Your task to perform on an android device: Go to Google maps Image 0: 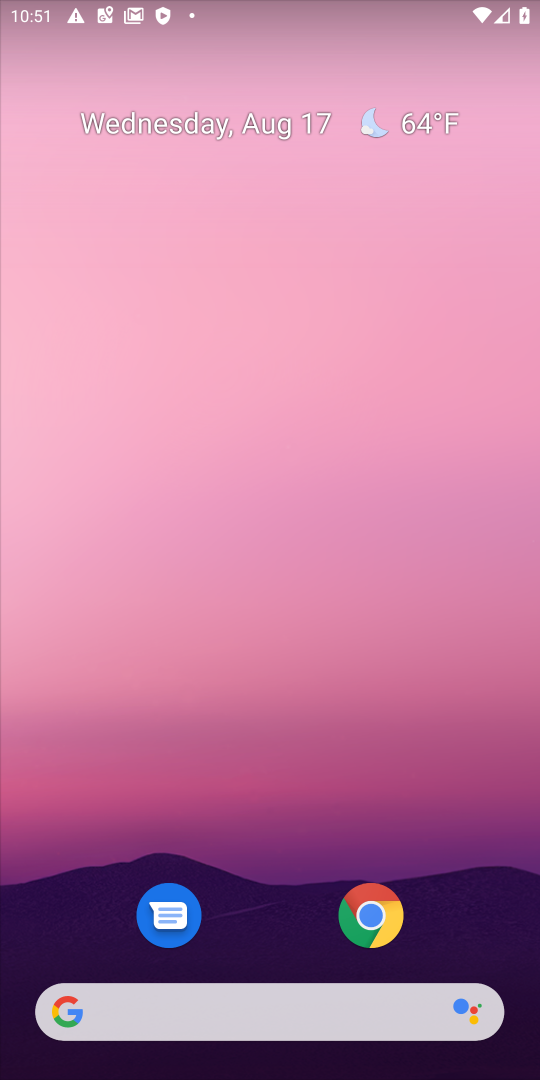
Step 0: drag from (270, 888) to (311, 220)
Your task to perform on an android device: Go to Google maps Image 1: 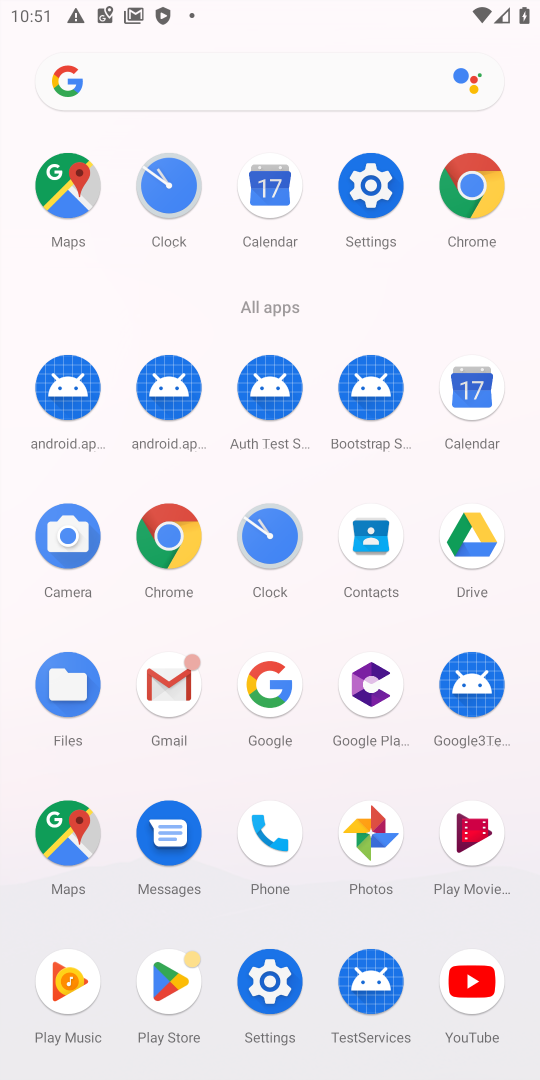
Step 1: click (66, 191)
Your task to perform on an android device: Go to Google maps Image 2: 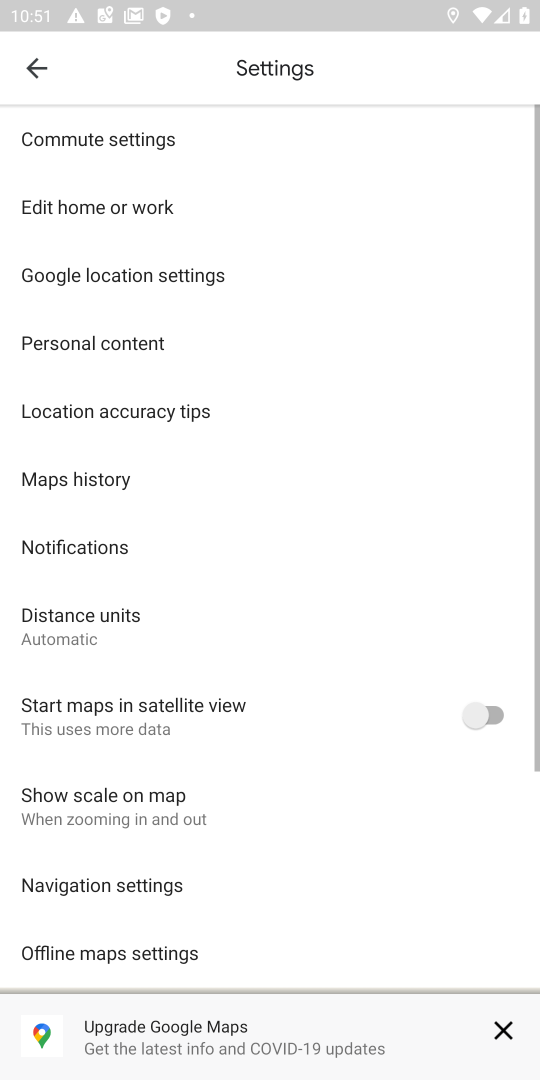
Step 2: click (41, 69)
Your task to perform on an android device: Go to Google maps Image 3: 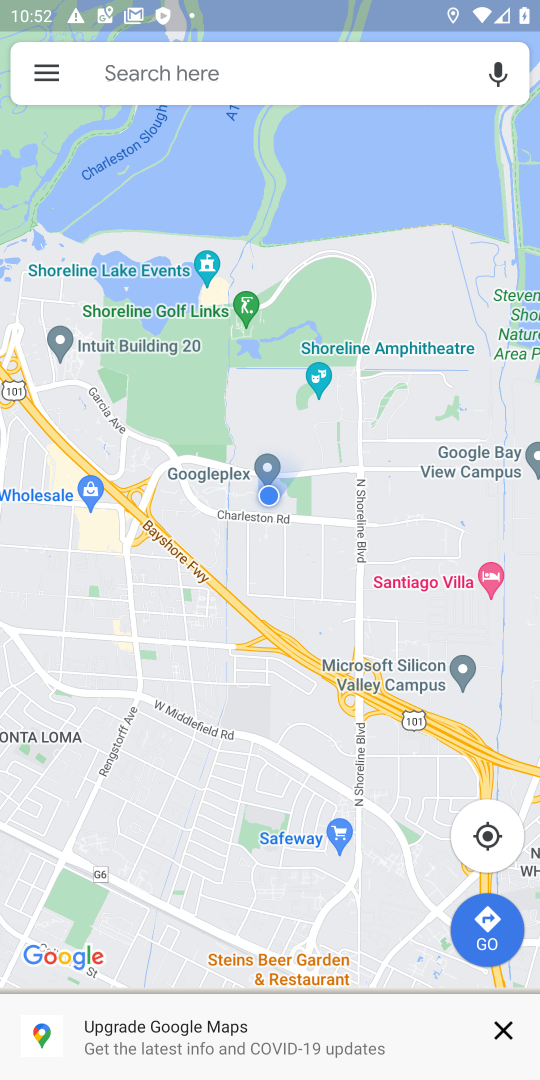
Step 3: task complete